Your task to perform on an android device: see creations saved in the google photos Image 0: 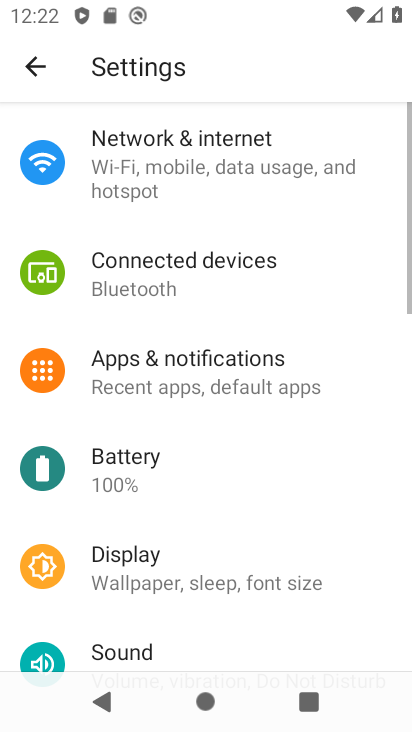
Step 0: press home button
Your task to perform on an android device: see creations saved in the google photos Image 1: 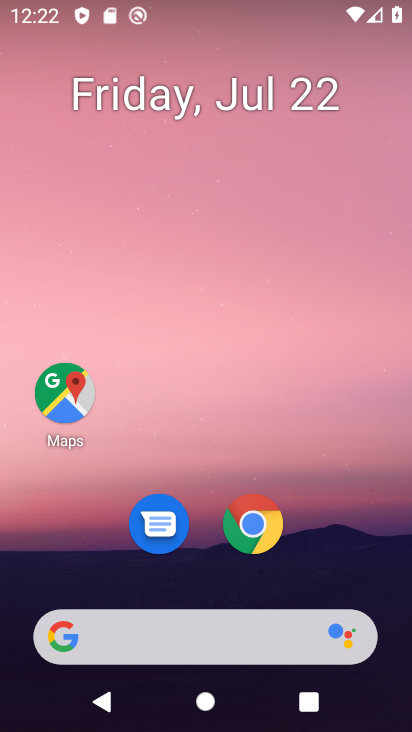
Step 1: drag from (214, 622) to (310, 217)
Your task to perform on an android device: see creations saved in the google photos Image 2: 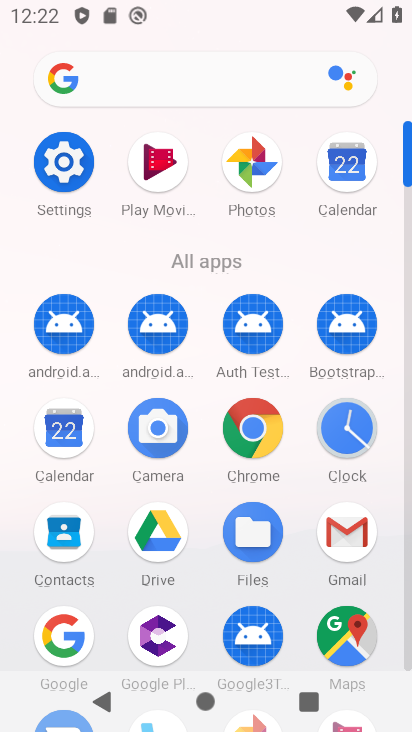
Step 2: click (254, 186)
Your task to perform on an android device: see creations saved in the google photos Image 3: 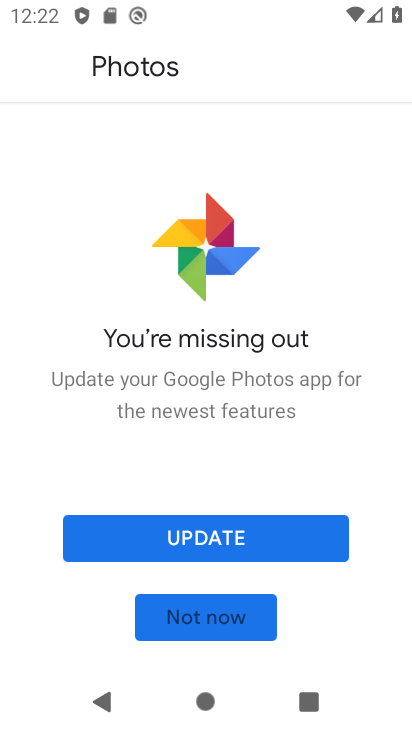
Step 3: click (246, 615)
Your task to perform on an android device: see creations saved in the google photos Image 4: 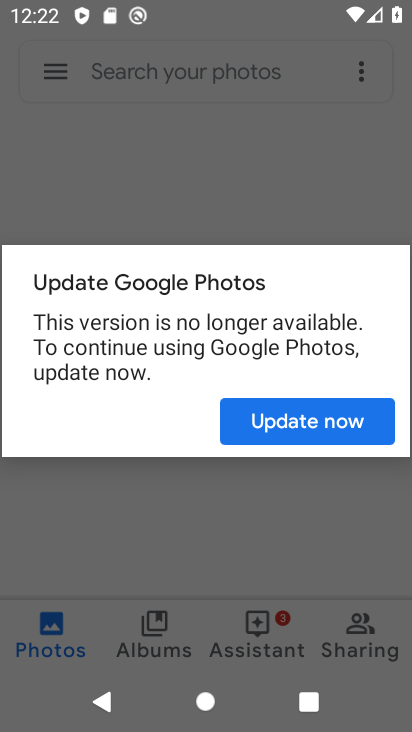
Step 4: click (287, 411)
Your task to perform on an android device: see creations saved in the google photos Image 5: 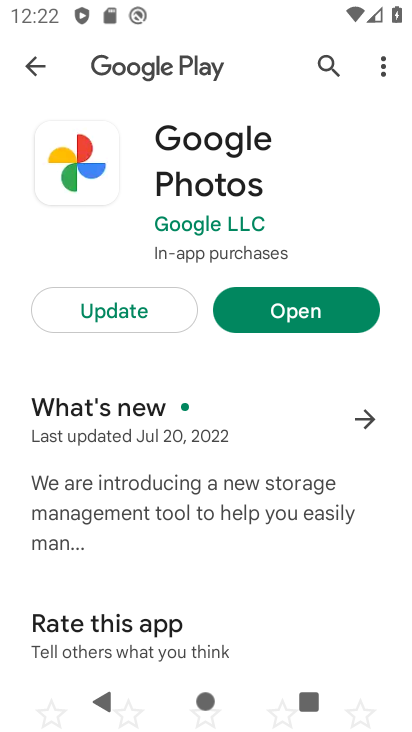
Step 5: click (156, 308)
Your task to perform on an android device: see creations saved in the google photos Image 6: 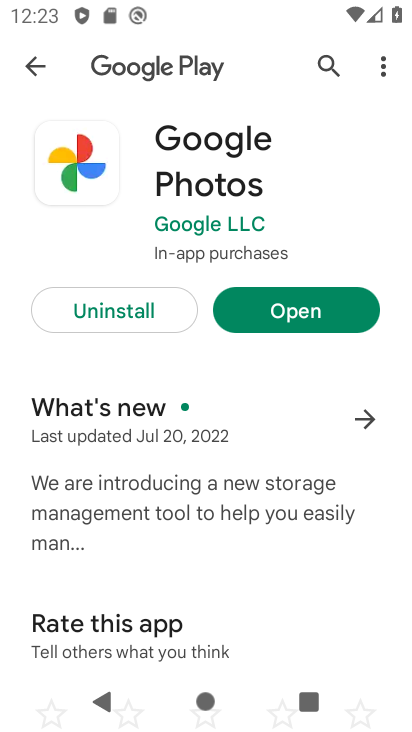
Step 6: click (296, 297)
Your task to perform on an android device: see creations saved in the google photos Image 7: 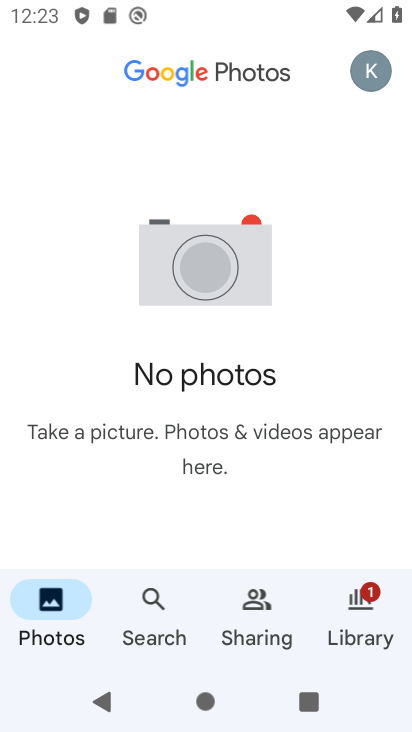
Step 7: click (150, 597)
Your task to perform on an android device: see creations saved in the google photos Image 8: 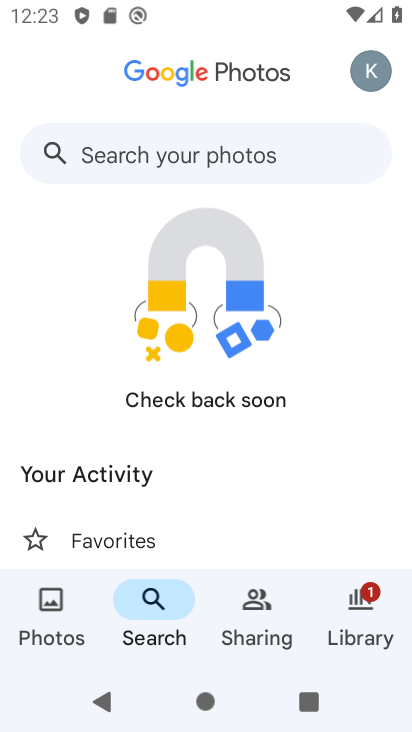
Step 8: drag from (191, 489) to (331, 89)
Your task to perform on an android device: see creations saved in the google photos Image 9: 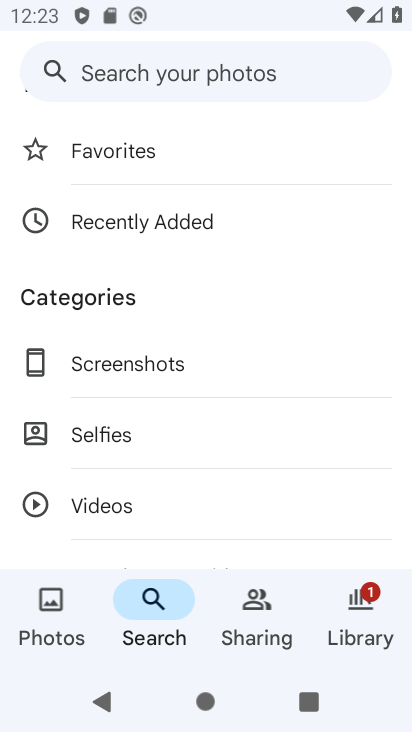
Step 9: drag from (190, 503) to (358, 1)
Your task to perform on an android device: see creations saved in the google photos Image 10: 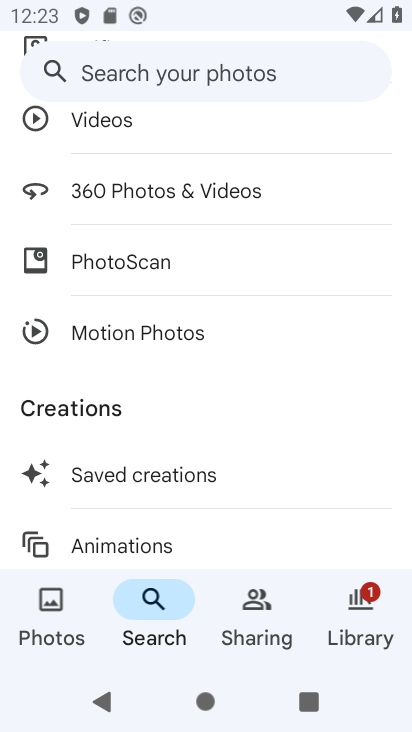
Step 10: click (177, 480)
Your task to perform on an android device: see creations saved in the google photos Image 11: 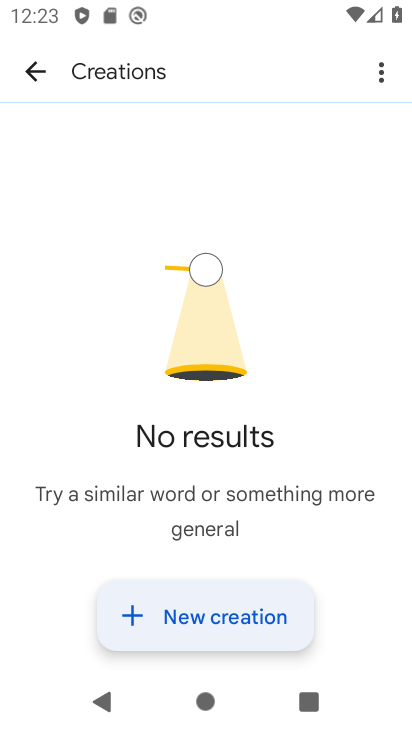
Step 11: task complete